Your task to perform on an android device: Open Maps and search for coffee Image 0: 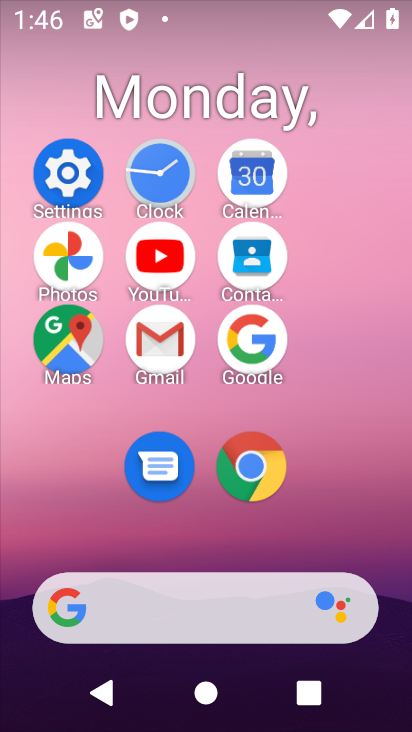
Step 0: click (76, 350)
Your task to perform on an android device: Open Maps and search for coffee Image 1: 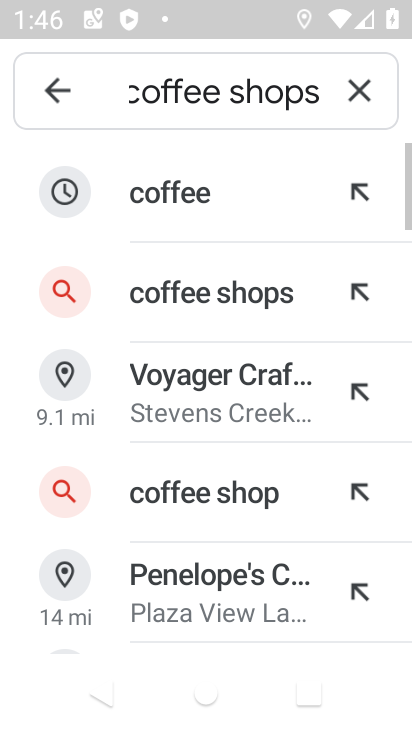
Step 1: click (232, 181)
Your task to perform on an android device: Open Maps and search for coffee Image 2: 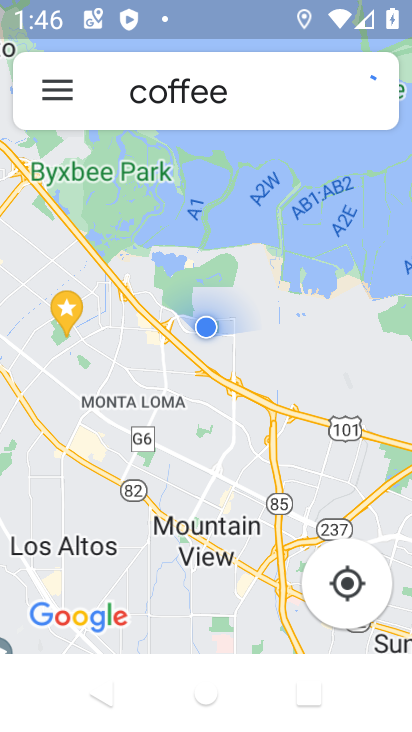
Step 2: task complete